Your task to perform on an android device: Open Google Maps and go to "Timeline" Image 0: 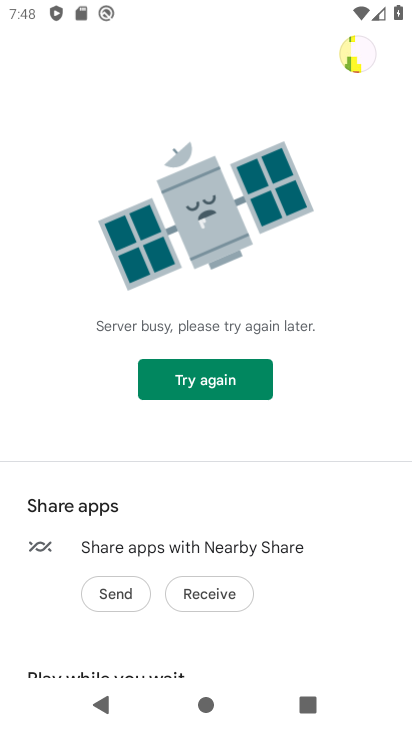
Step 0: press home button
Your task to perform on an android device: Open Google Maps and go to "Timeline" Image 1: 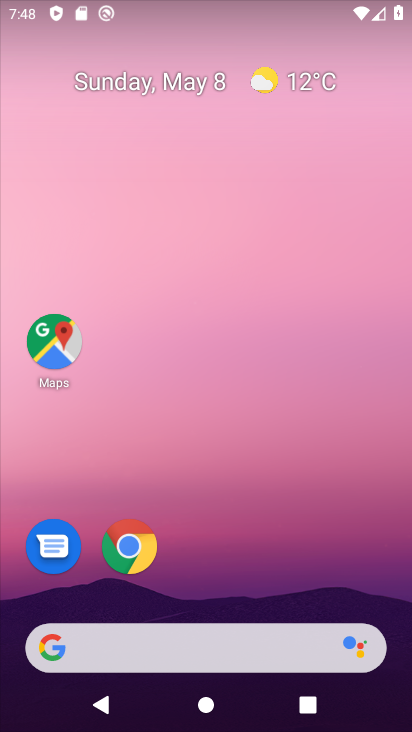
Step 1: click (44, 334)
Your task to perform on an android device: Open Google Maps and go to "Timeline" Image 2: 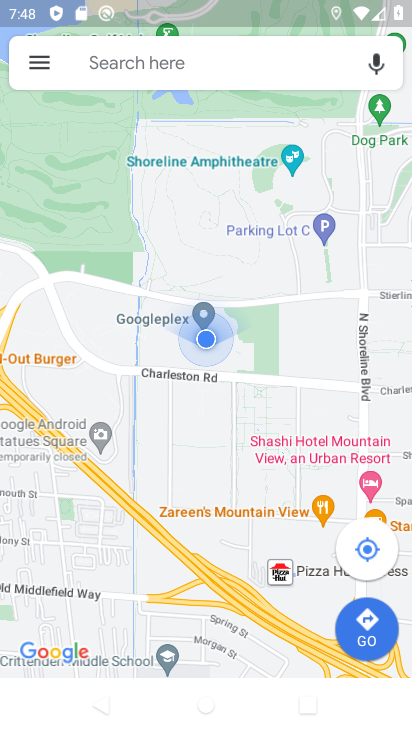
Step 2: click (43, 60)
Your task to perform on an android device: Open Google Maps and go to "Timeline" Image 3: 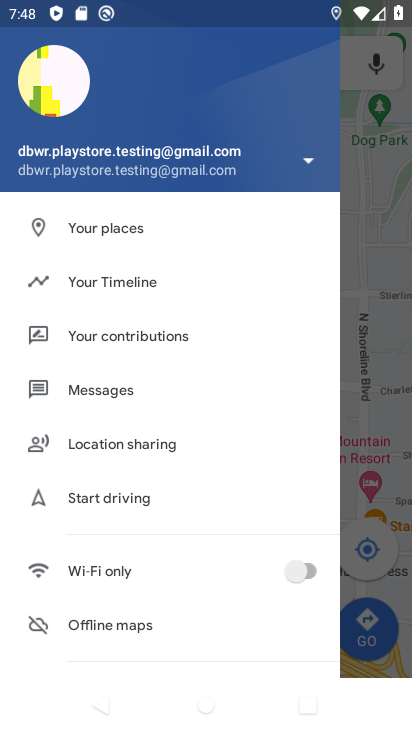
Step 3: click (89, 278)
Your task to perform on an android device: Open Google Maps and go to "Timeline" Image 4: 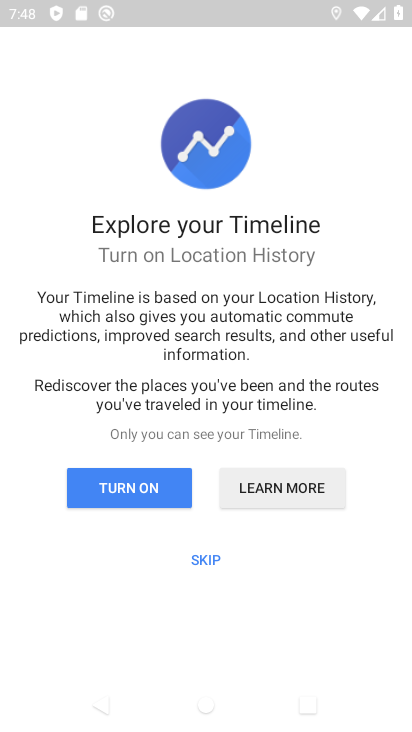
Step 4: click (139, 491)
Your task to perform on an android device: Open Google Maps and go to "Timeline" Image 5: 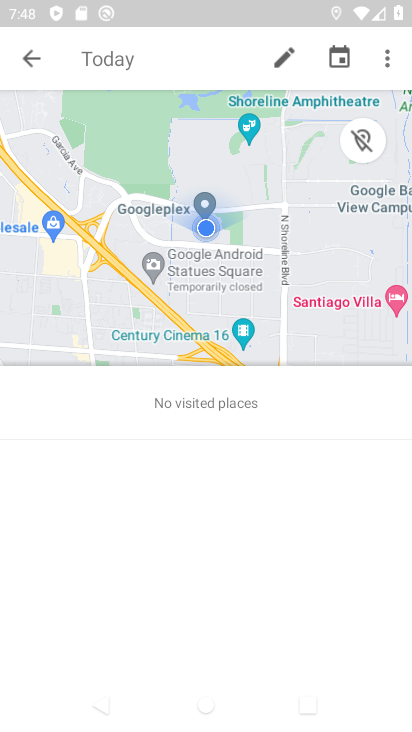
Step 5: task complete